Your task to perform on an android device: turn on priority inbox in the gmail app Image 0: 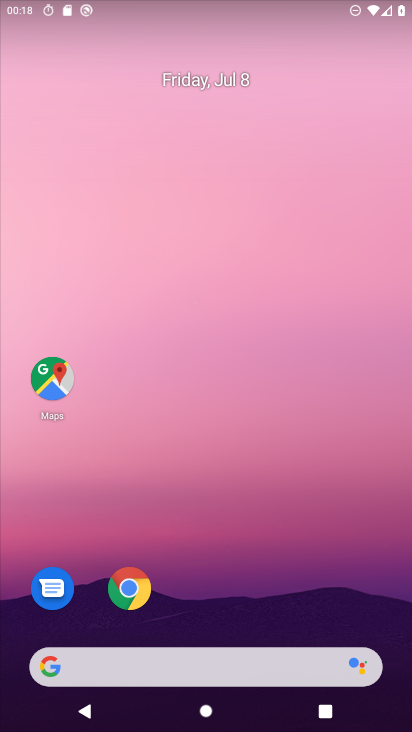
Step 0: drag from (302, 576) to (197, 15)
Your task to perform on an android device: turn on priority inbox in the gmail app Image 1: 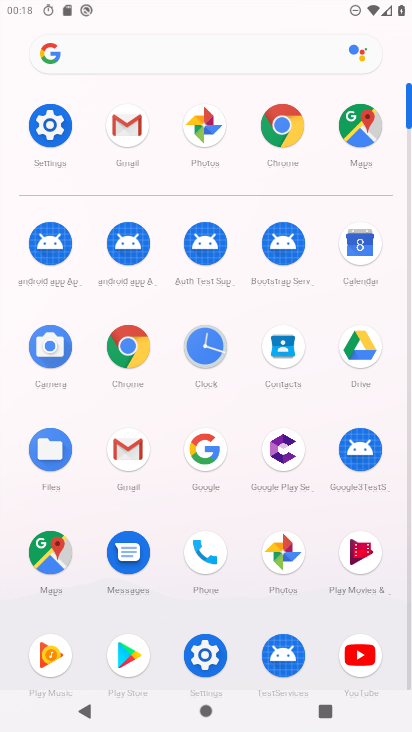
Step 1: click (128, 134)
Your task to perform on an android device: turn on priority inbox in the gmail app Image 2: 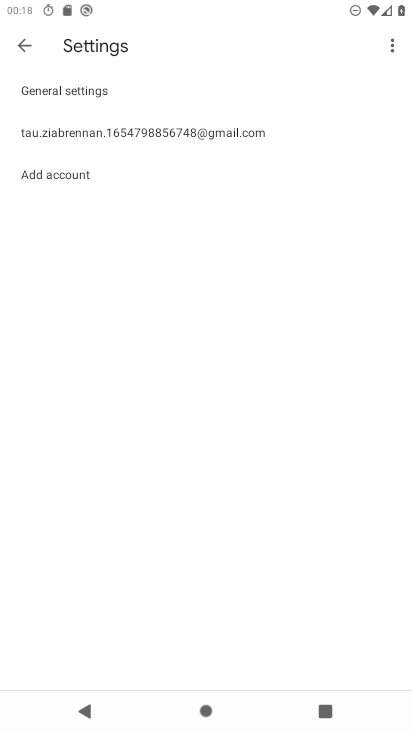
Step 2: click (97, 125)
Your task to perform on an android device: turn on priority inbox in the gmail app Image 3: 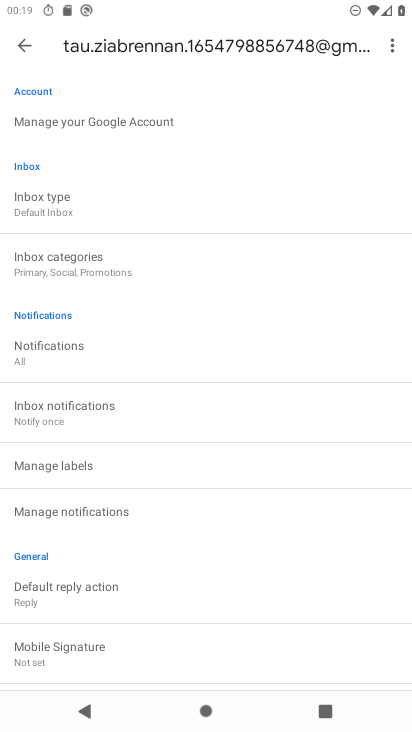
Step 3: click (61, 194)
Your task to perform on an android device: turn on priority inbox in the gmail app Image 4: 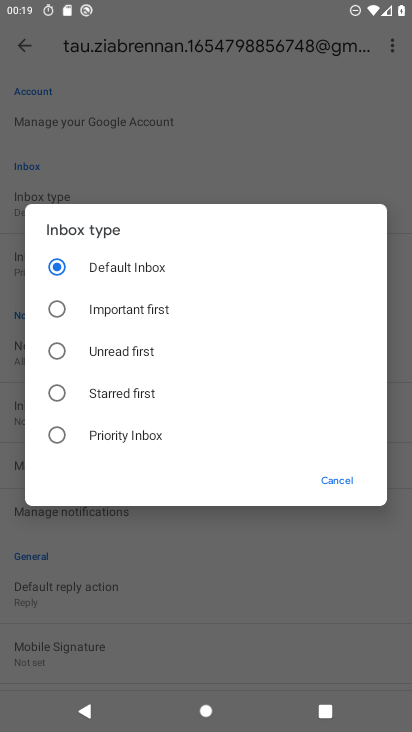
Step 4: task complete